Your task to perform on an android device: Go to accessibility settings Image 0: 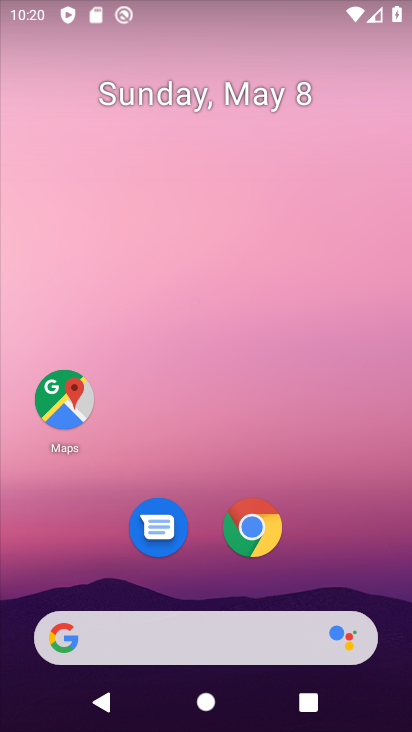
Step 0: drag from (343, 453) to (343, 139)
Your task to perform on an android device: Go to accessibility settings Image 1: 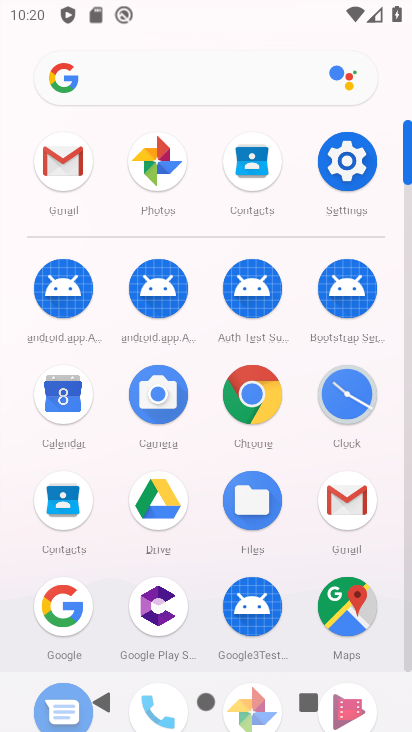
Step 1: click (357, 147)
Your task to perform on an android device: Go to accessibility settings Image 2: 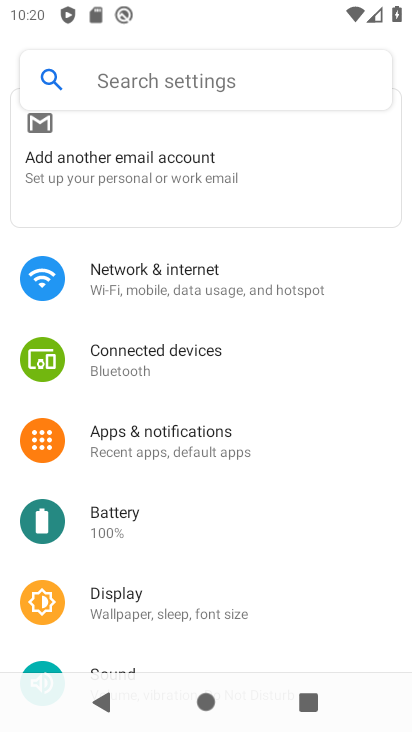
Step 2: drag from (204, 505) to (204, 353)
Your task to perform on an android device: Go to accessibility settings Image 3: 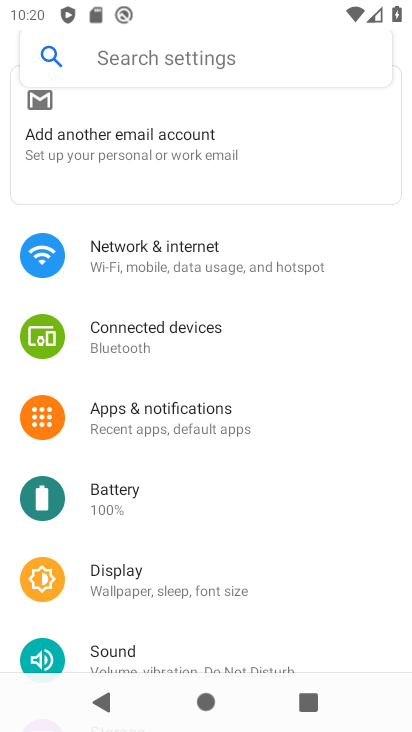
Step 3: drag from (218, 589) to (220, 274)
Your task to perform on an android device: Go to accessibility settings Image 4: 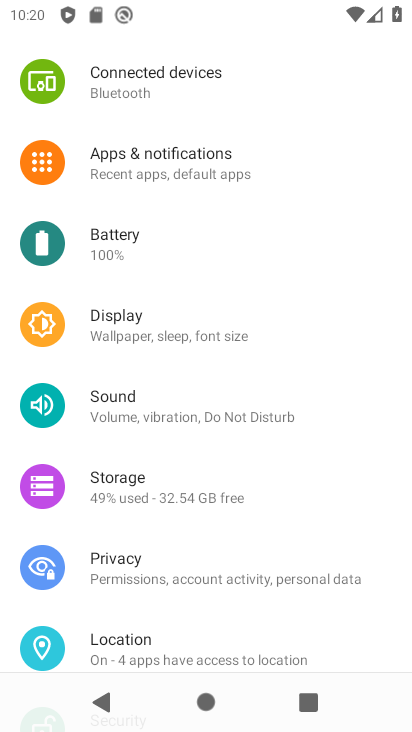
Step 4: drag from (241, 629) to (241, 217)
Your task to perform on an android device: Go to accessibility settings Image 5: 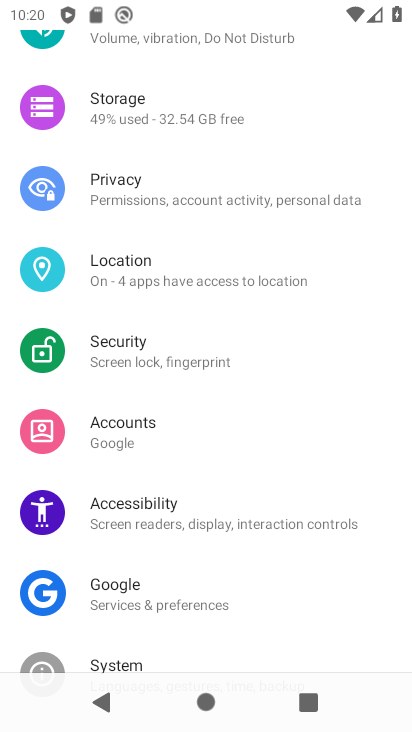
Step 5: click (228, 511)
Your task to perform on an android device: Go to accessibility settings Image 6: 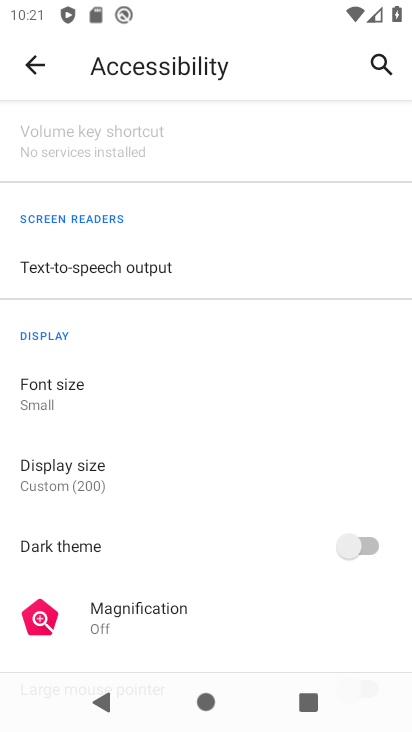
Step 6: task complete